Your task to perform on an android device: Go to Reddit.com Image 0: 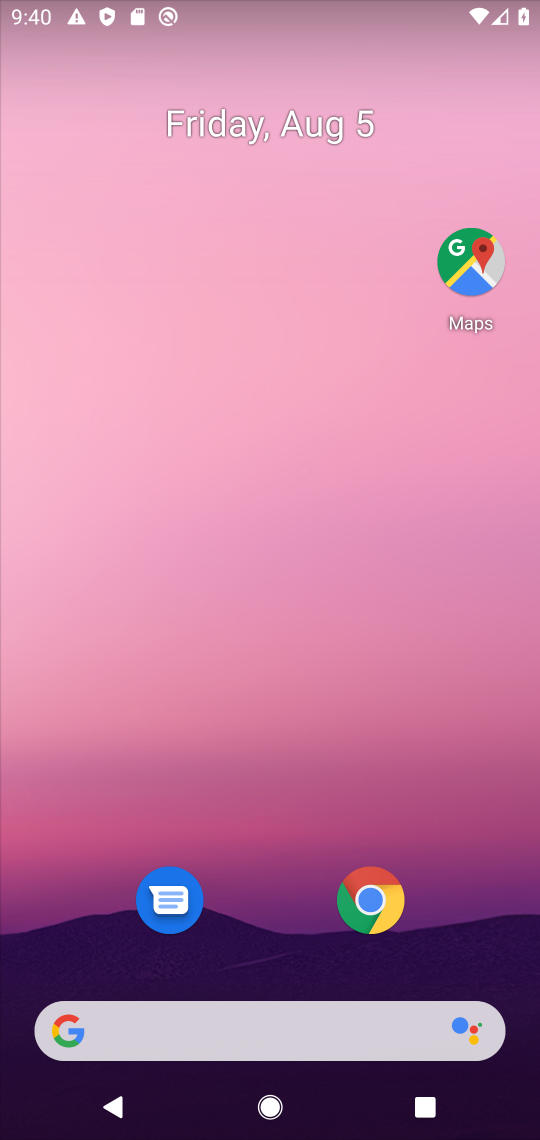
Step 0: click (374, 925)
Your task to perform on an android device: Go to Reddit.com Image 1: 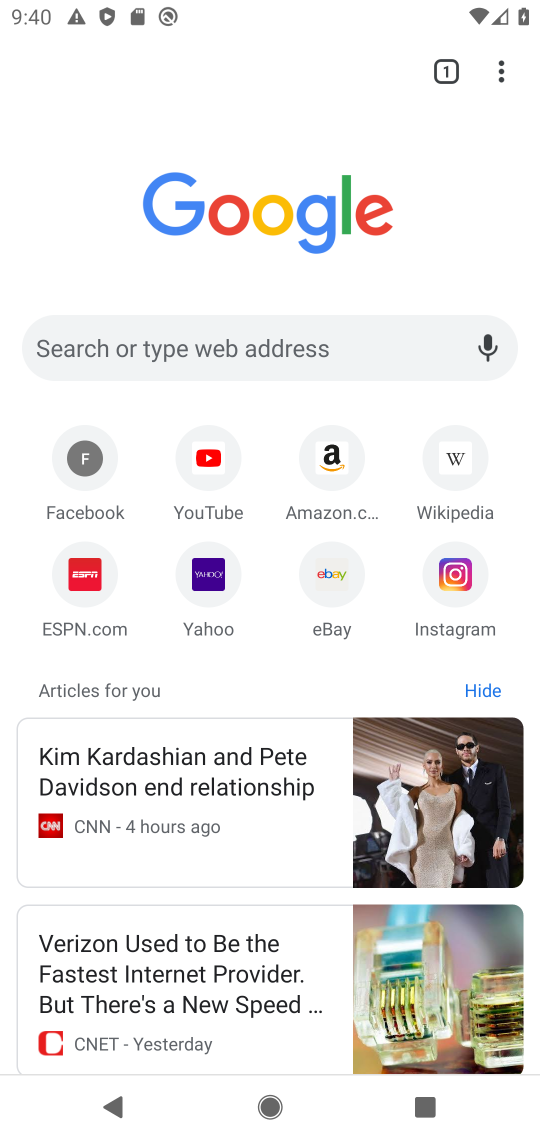
Step 1: click (284, 353)
Your task to perform on an android device: Go to Reddit.com Image 2: 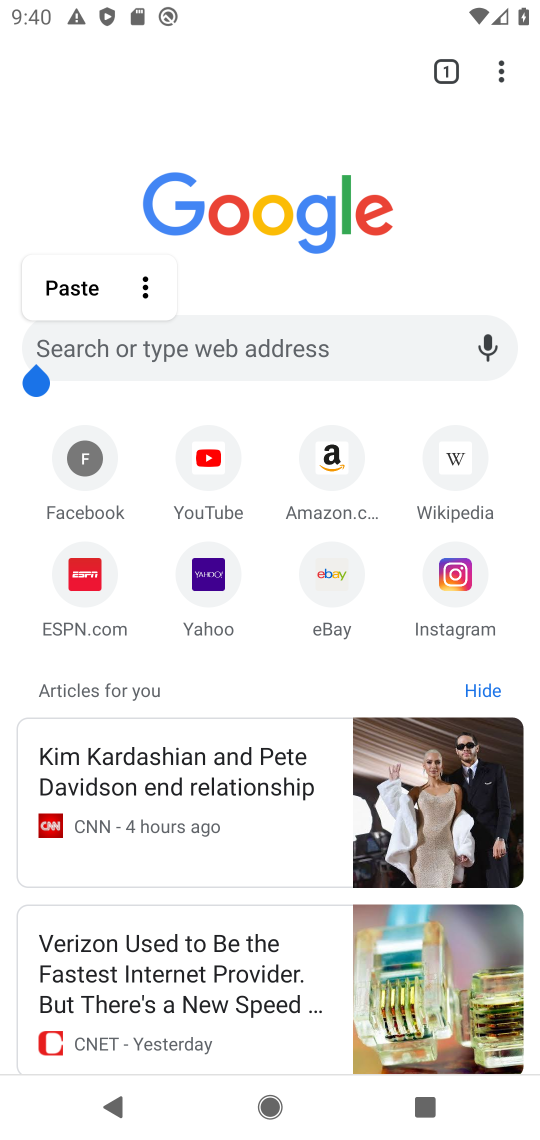
Step 2: click (133, 340)
Your task to perform on an android device: Go to Reddit.com Image 3: 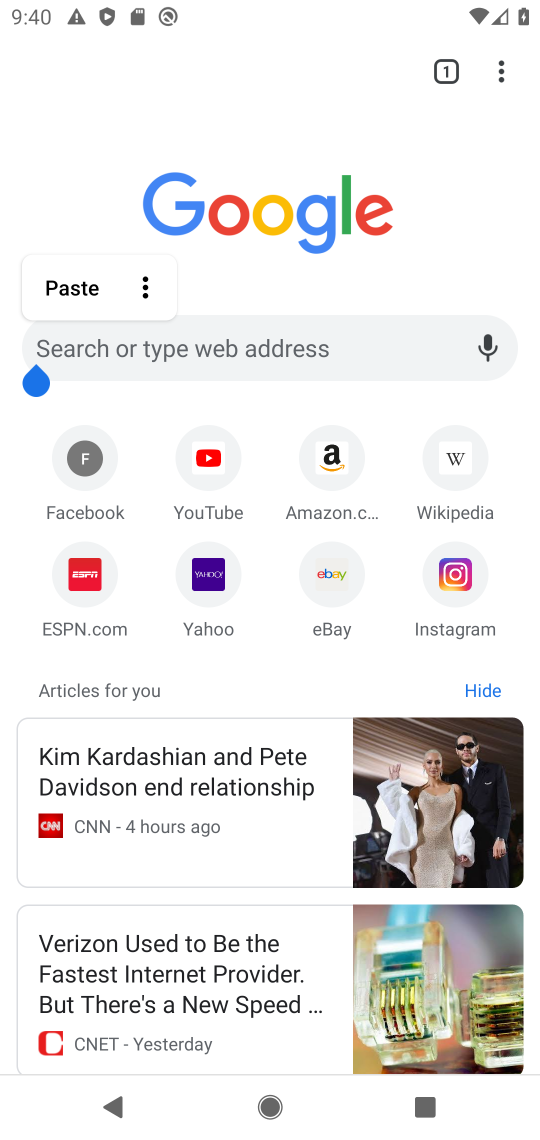
Step 3: click (133, 340)
Your task to perform on an android device: Go to Reddit.com Image 4: 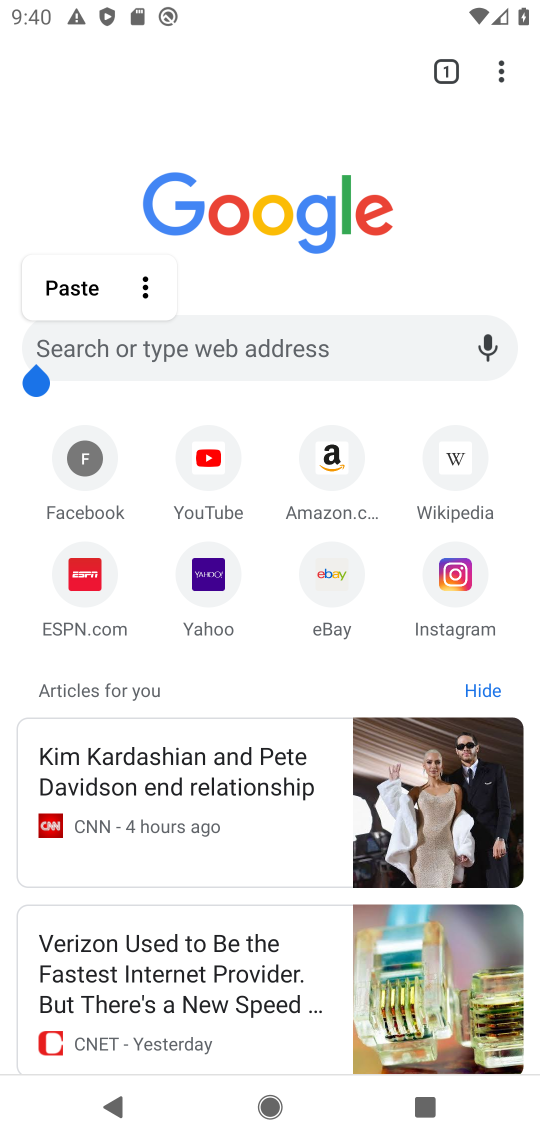
Step 4: click (133, 340)
Your task to perform on an android device: Go to Reddit.com Image 5: 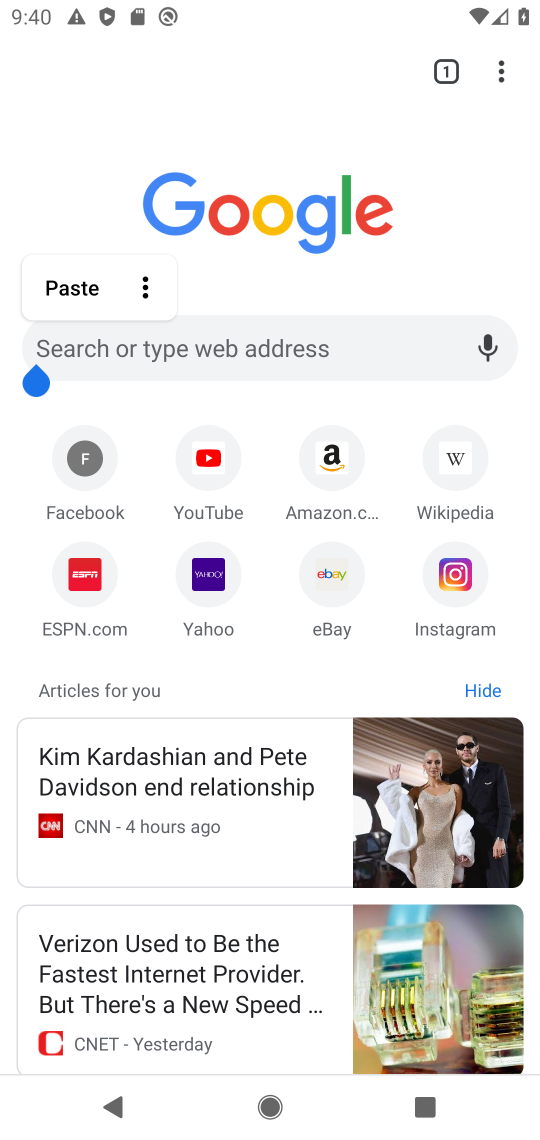
Step 5: click (133, 340)
Your task to perform on an android device: Go to Reddit.com Image 6: 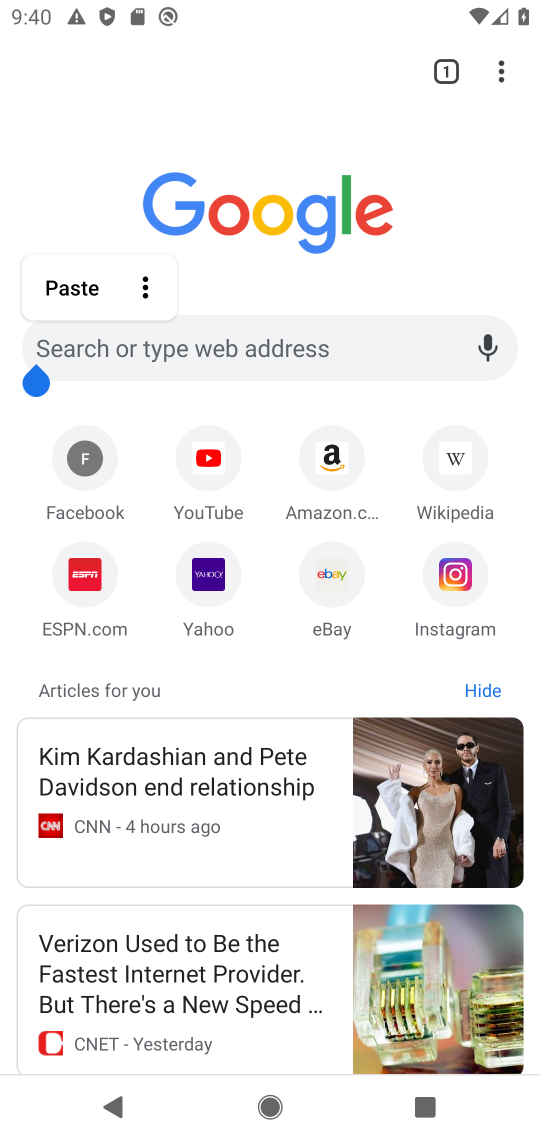
Step 6: click (133, 340)
Your task to perform on an android device: Go to Reddit.com Image 7: 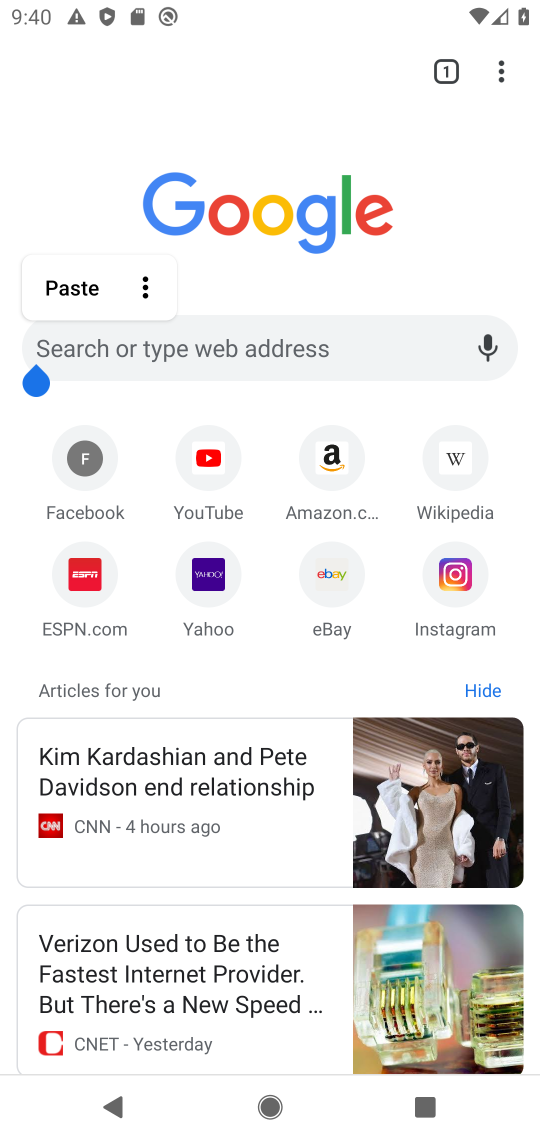
Step 7: click (133, 340)
Your task to perform on an android device: Go to Reddit.com Image 8: 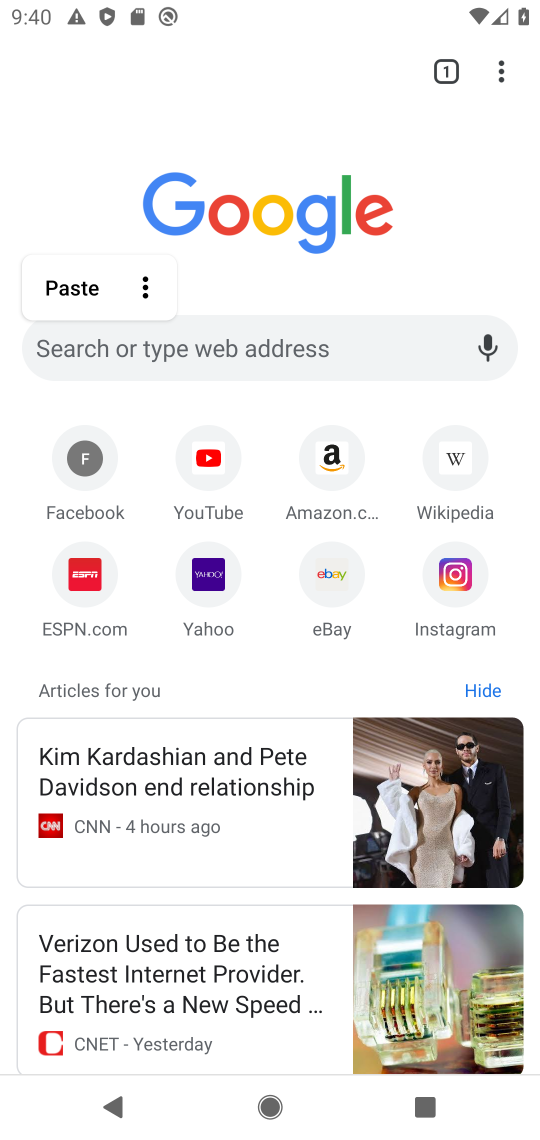
Step 8: click (133, 340)
Your task to perform on an android device: Go to Reddit.com Image 9: 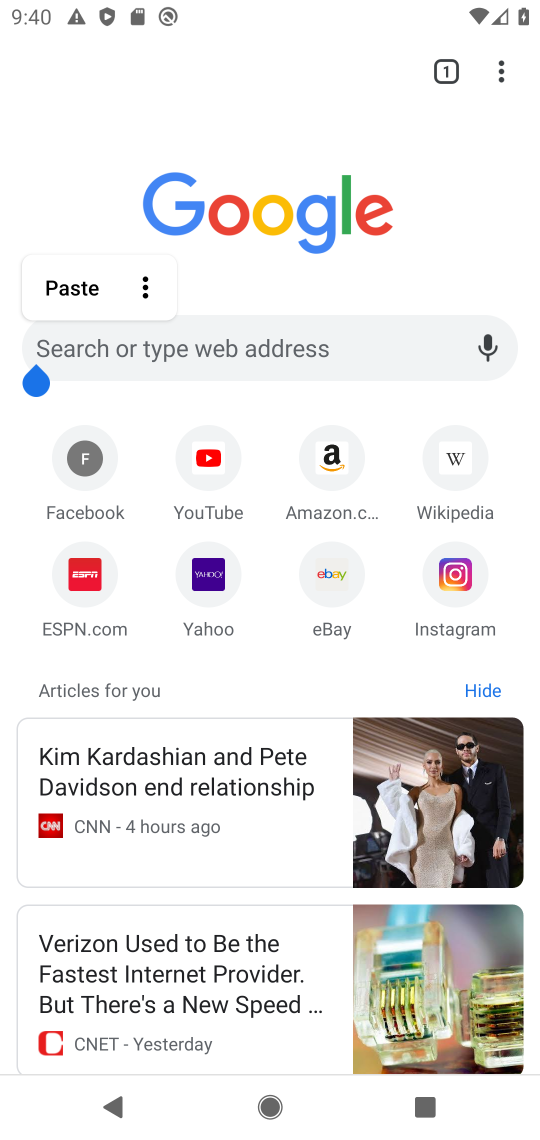
Step 9: click (60, 355)
Your task to perform on an android device: Go to Reddit.com Image 10: 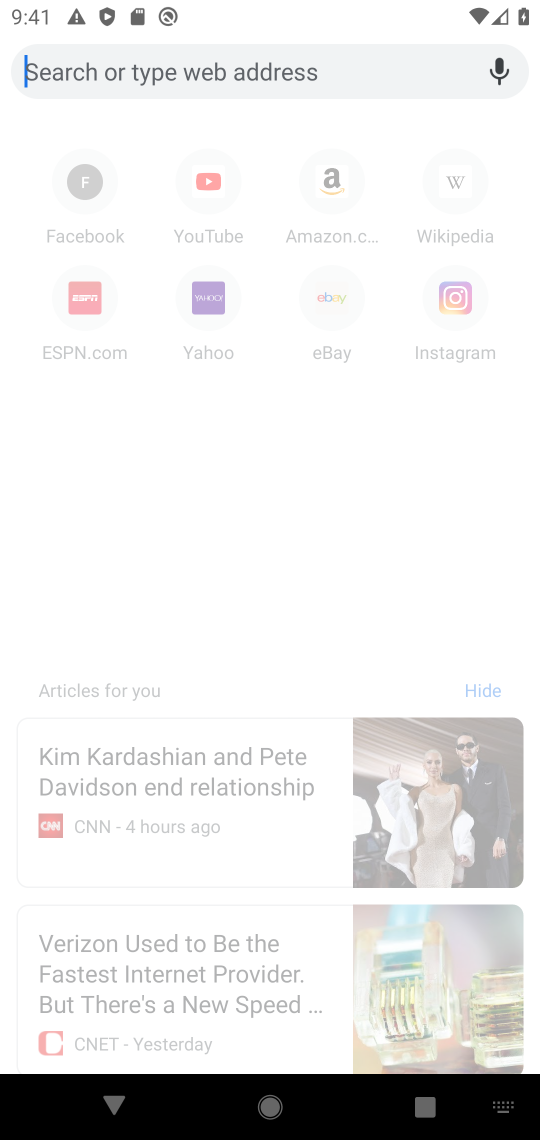
Step 10: type "Reddit.com"
Your task to perform on an android device: Go to Reddit.com Image 11: 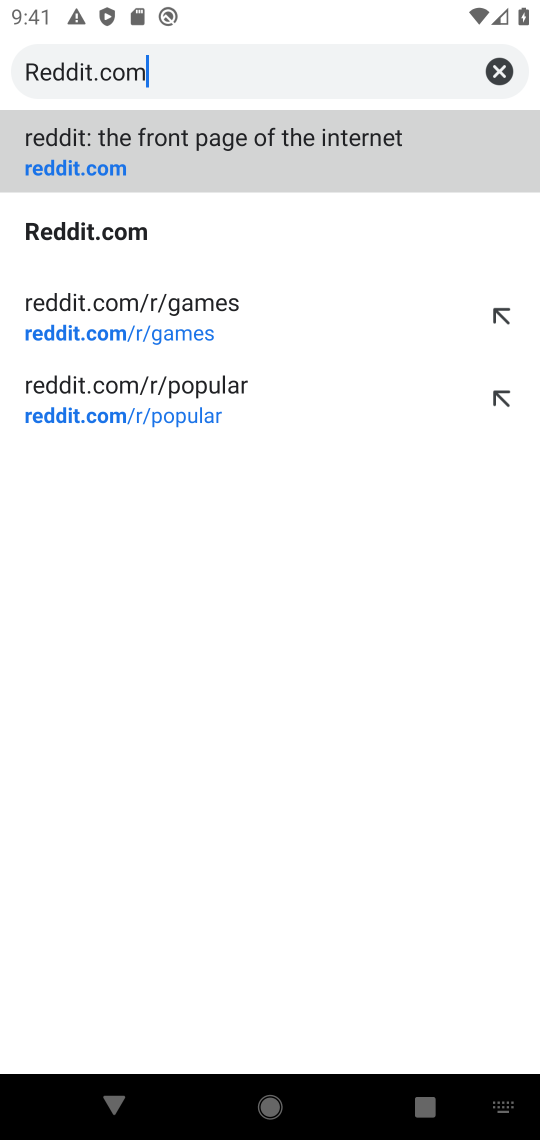
Step 11: click (134, 175)
Your task to perform on an android device: Go to Reddit.com Image 12: 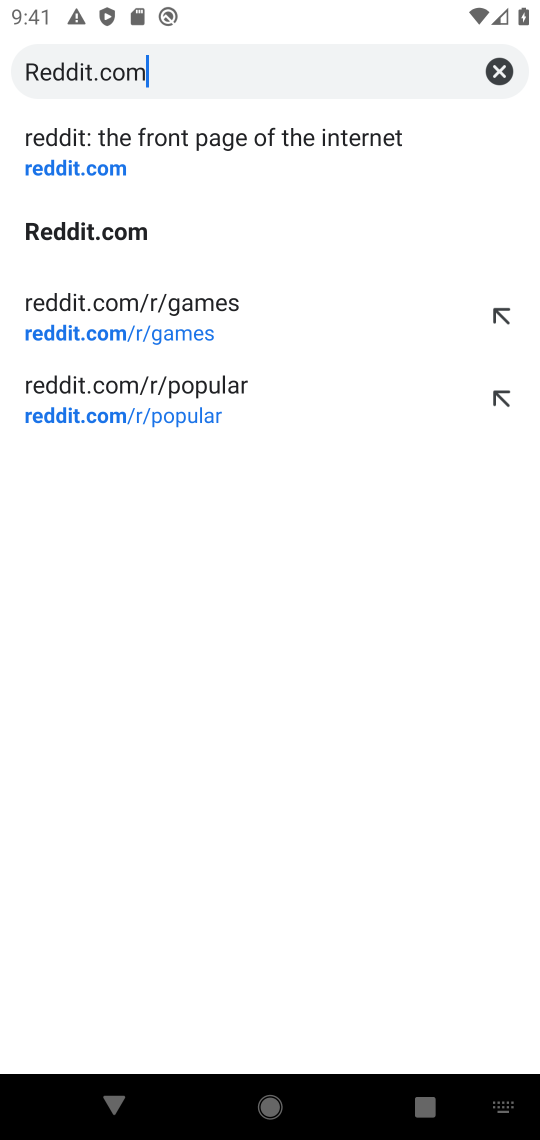
Step 12: click (66, 181)
Your task to perform on an android device: Go to Reddit.com Image 13: 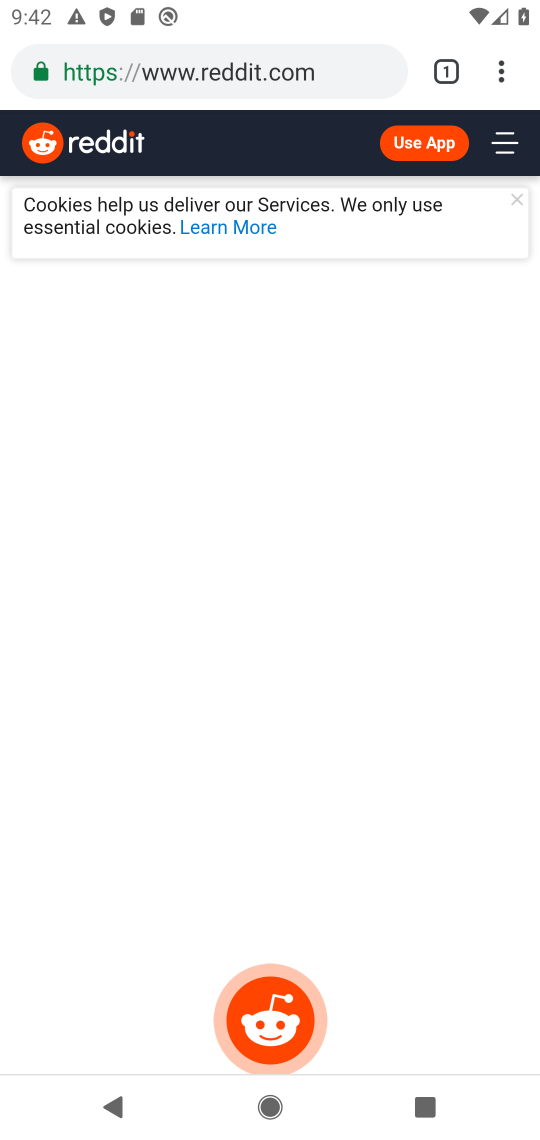
Step 13: task complete